Your task to perform on an android device: Search for usb-c to usb-a on walmart, select the first entry, and add it to the cart. Image 0: 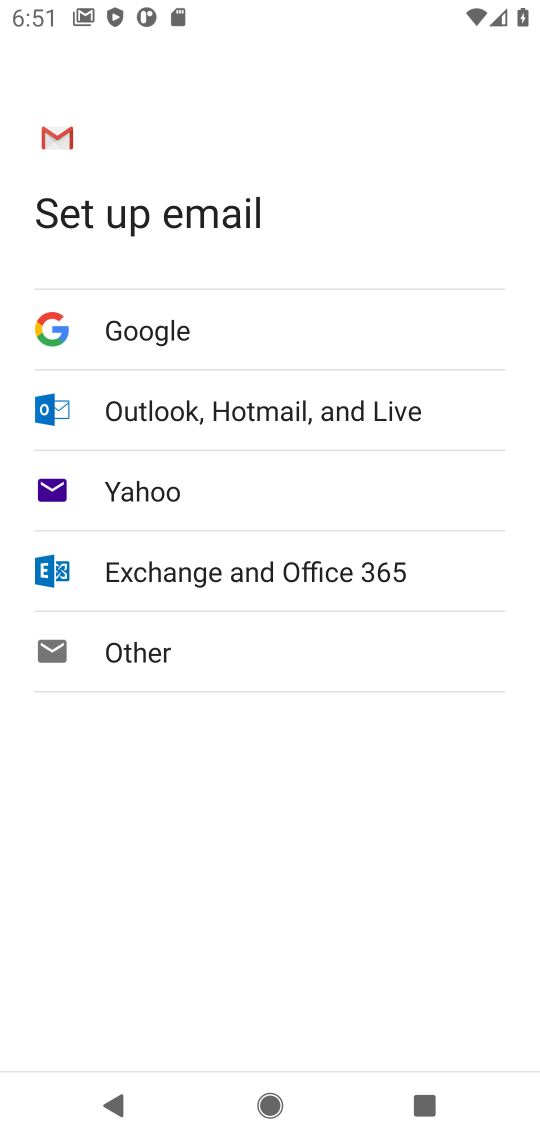
Step 0: press home button
Your task to perform on an android device: Search for usb-c to usb-a on walmart, select the first entry, and add it to the cart. Image 1: 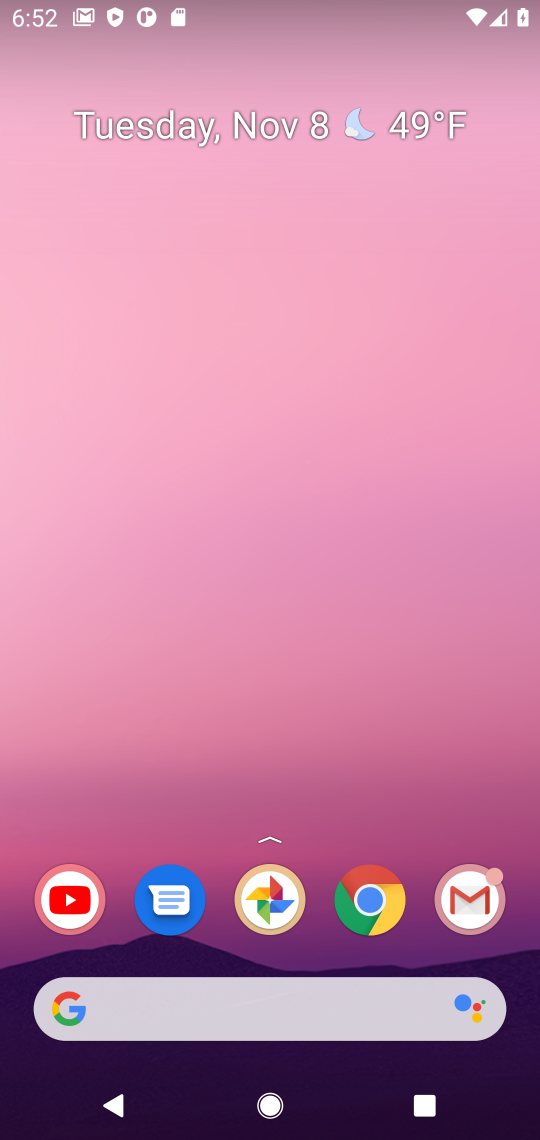
Step 1: click (392, 908)
Your task to perform on an android device: Search for usb-c to usb-a on walmart, select the first entry, and add it to the cart. Image 2: 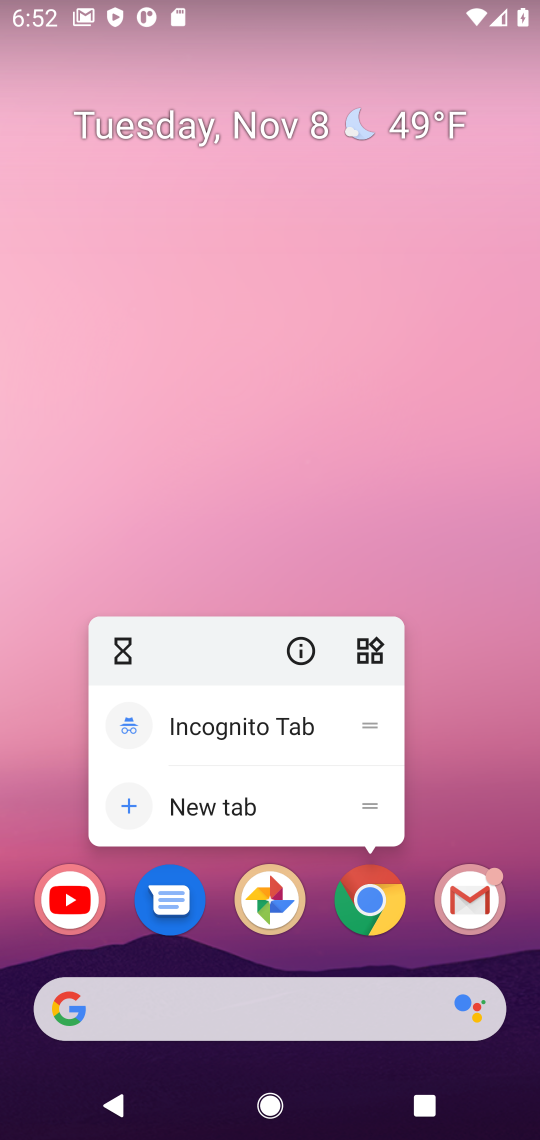
Step 2: click (382, 904)
Your task to perform on an android device: Search for usb-c to usb-a on walmart, select the first entry, and add it to the cart. Image 3: 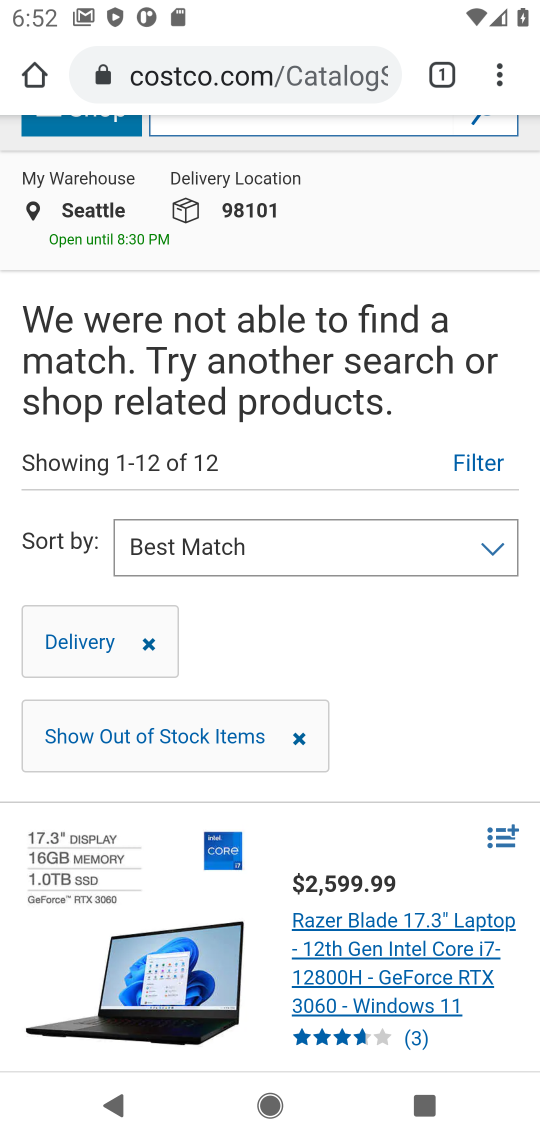
Step 3: click (286, 80)
Your task to perform on an android device: Search for usb-c to usb-a on walmart, select the first entry, and add it to the cart. Image 4: 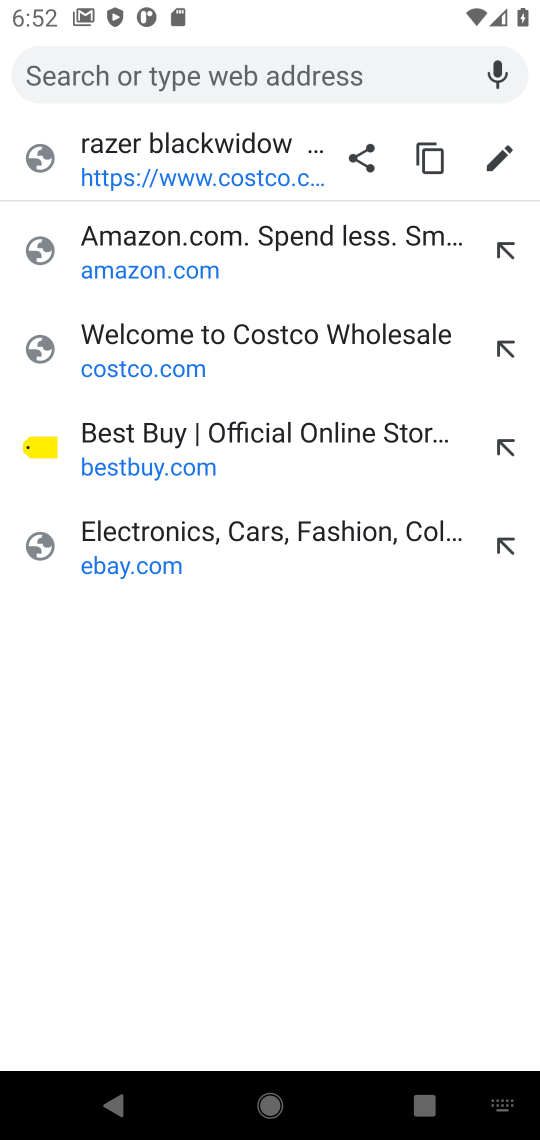
Step 4: type "walmart"
Your task to perform on an android device: Search for usb-c to usb-a on walmart, select the first entry, and add it to the cart. Image 5: 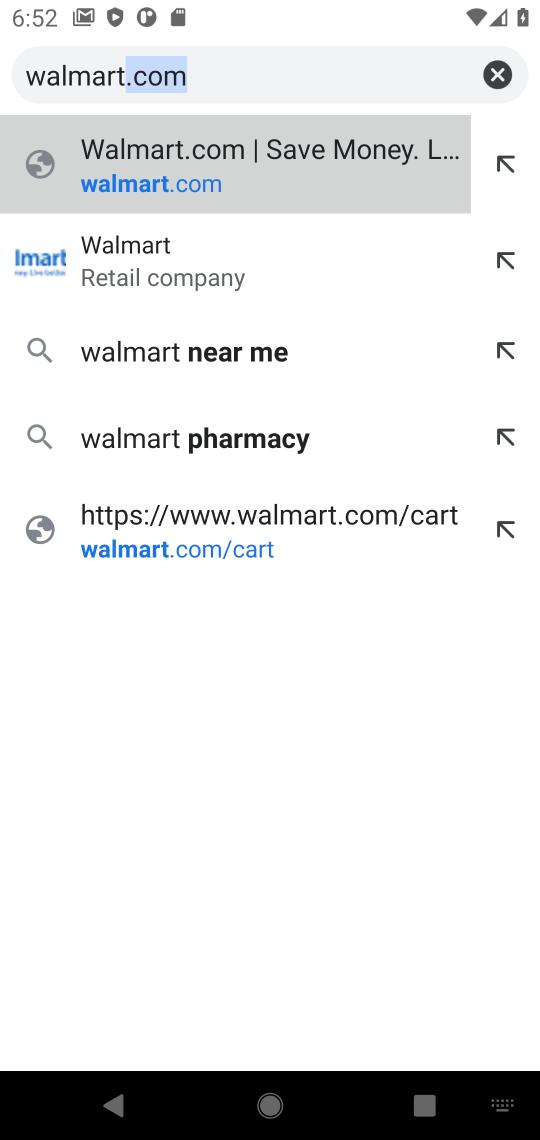
Step 5: type ""
Your task to perform on an android device: Search for usb-c to usb-a on walmart, select the first entry, and add it to the cart. Image 6: 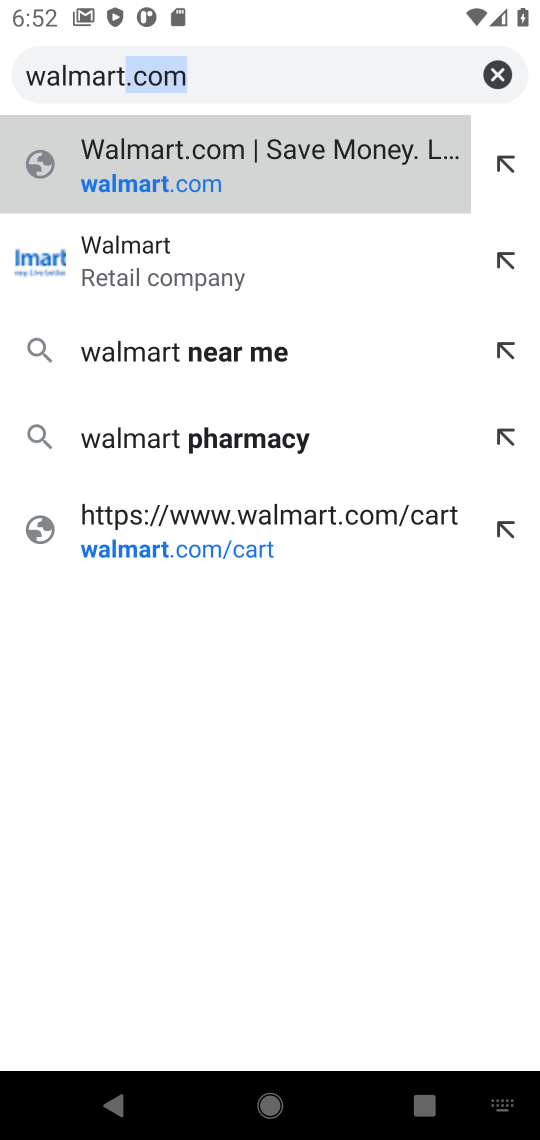
Step 6: press enter
Your task to perform on an android device: Search for usb-c to usb-a on walmart, select the first entry, and add it to the cart. Image 7: 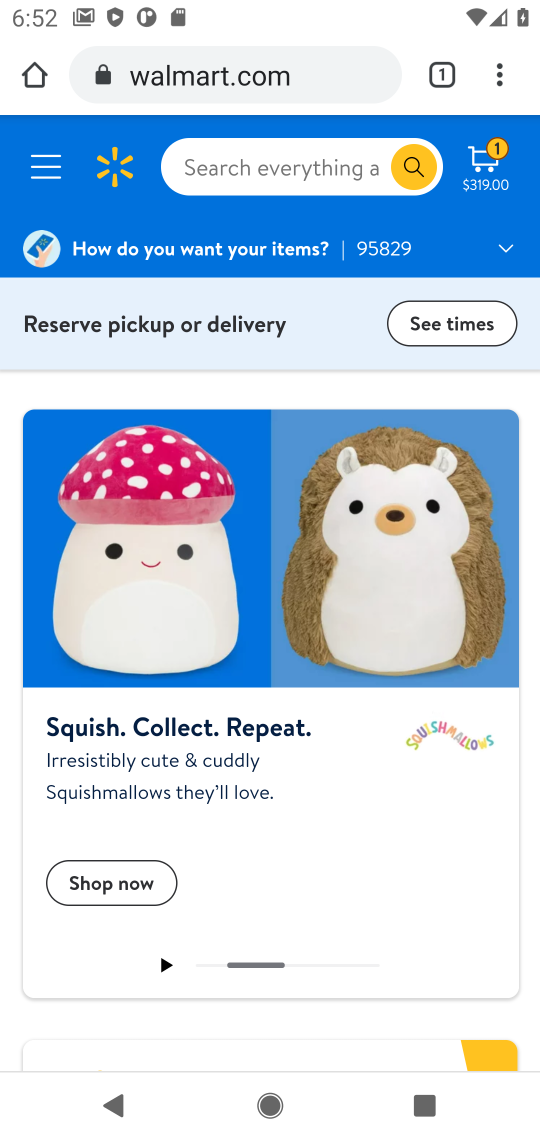
Step 7: click (285, 160)
Your task to perform on an android device: Search for usb-c to usb-a on walmart, select the first entry, and add it to the cart. Image 8: 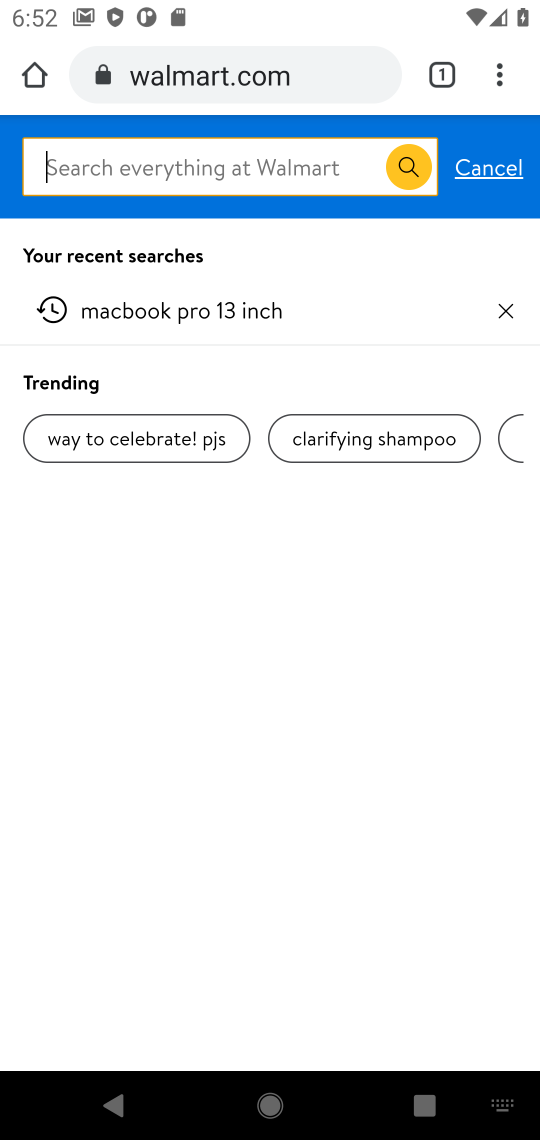
Step 8: type "usb-c to usb-a"
Your task to perform on an android device: Search for usb-c to usb-a on walmart, select the first entry, and add it to the cart. Image 9: 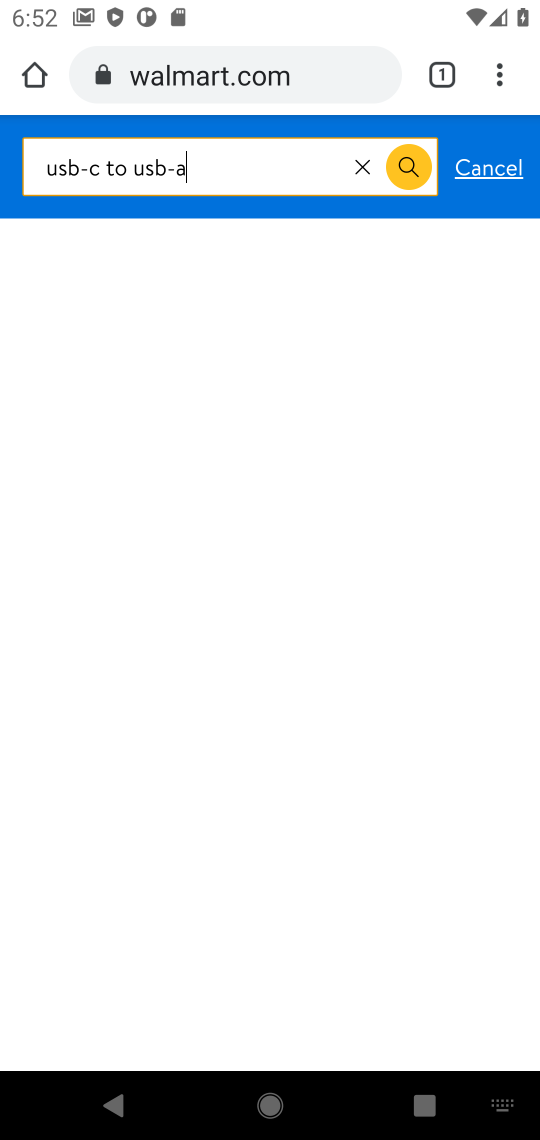
Step 9: type ""
Your task to perform on an android device: Search for usb-c to usb-a on walmart, select the first entry, and add it to the cart. Image 10: 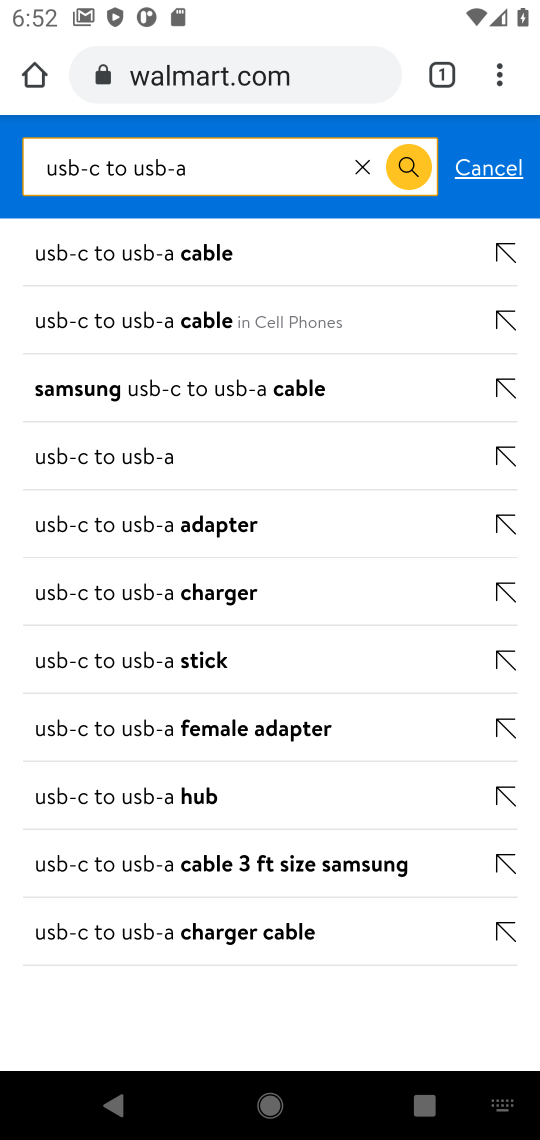
Step 10: press enter
Your task to perform on an android device: Search for usb-c to usb-a on walmart, select the first entry, and add it to the cart. Image 11: 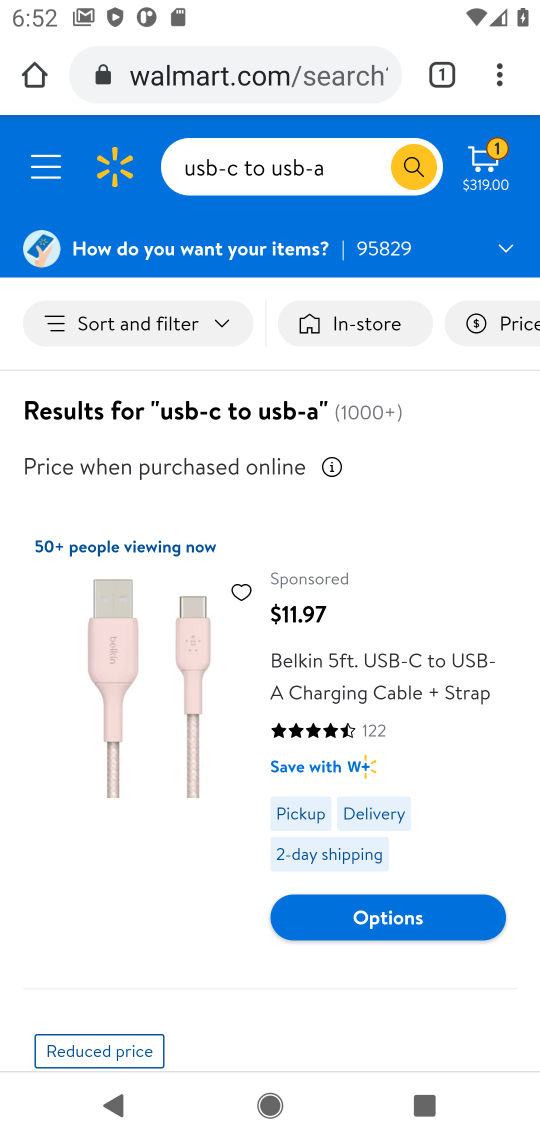
Step 11: click (331, 670)
Your task to perform on an android device: Search for usb-c to usb-a on walmart, select the first entry, and add it to the cart. Image 12: 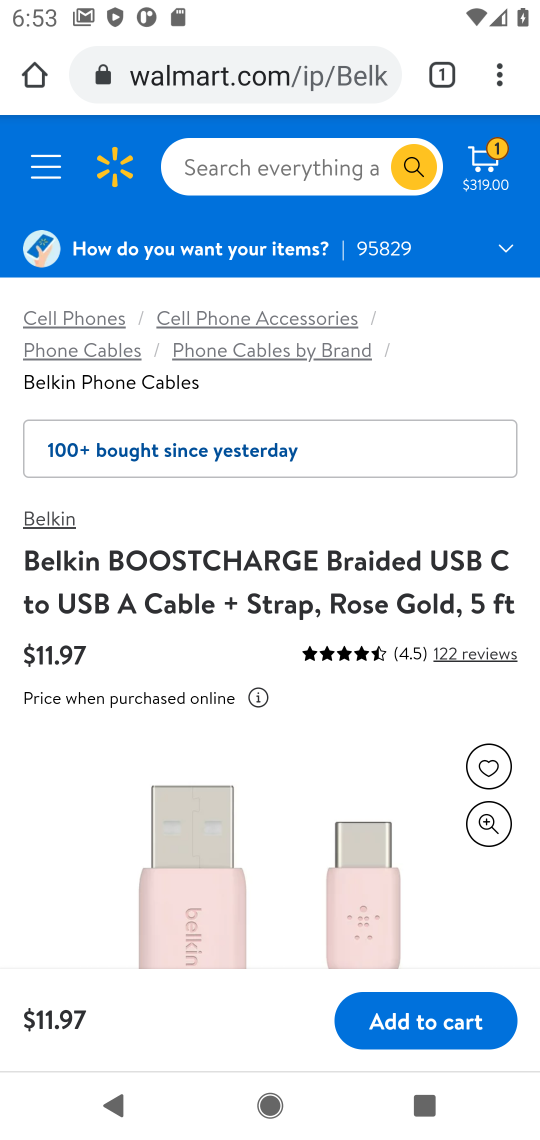
Step 12: click (436, 1014)
Your task to perform on an android device: Search for usb-c to usb-a on walmart, select the first entry, and add it to the cart. Image 13: 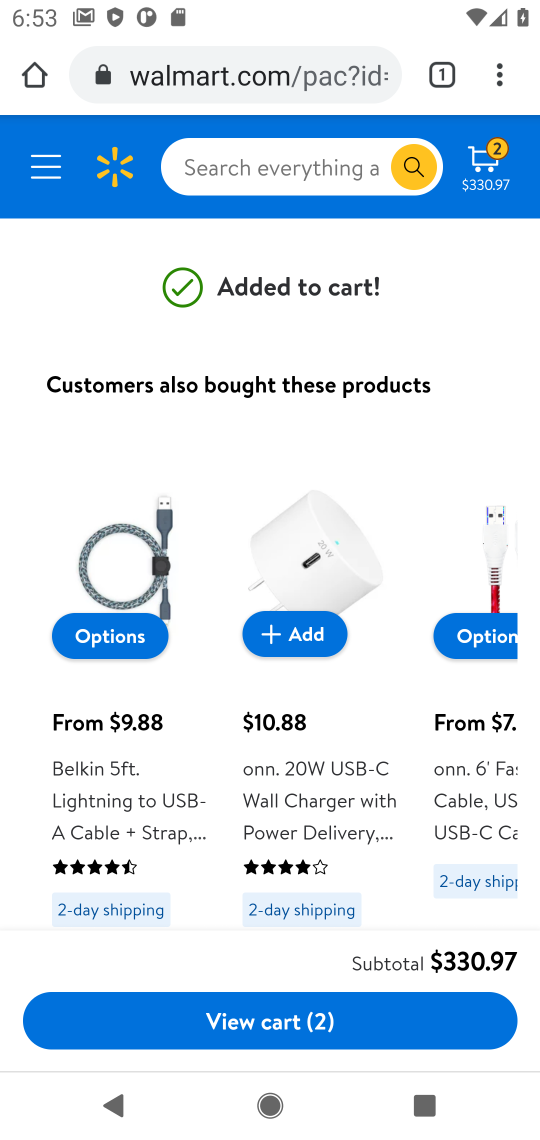
Step 13: task complete